Your task to perform on an android device: Open Maps and search for coffee Image 0: 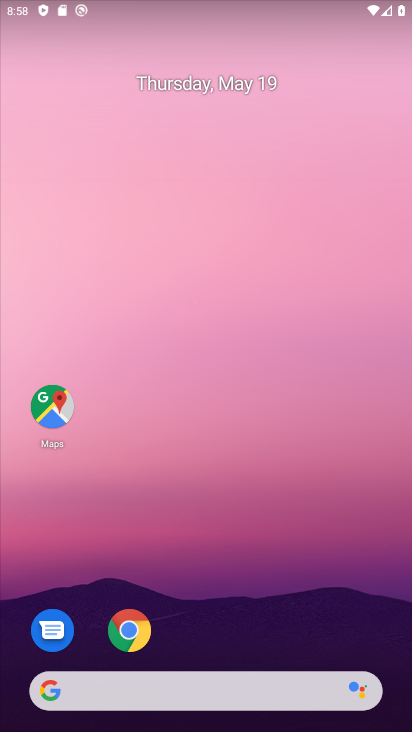
Step 0: drag from (228, 573) to (243, 119)
Your task to perform on an android device: Open Maps and search for coffee Image 1: 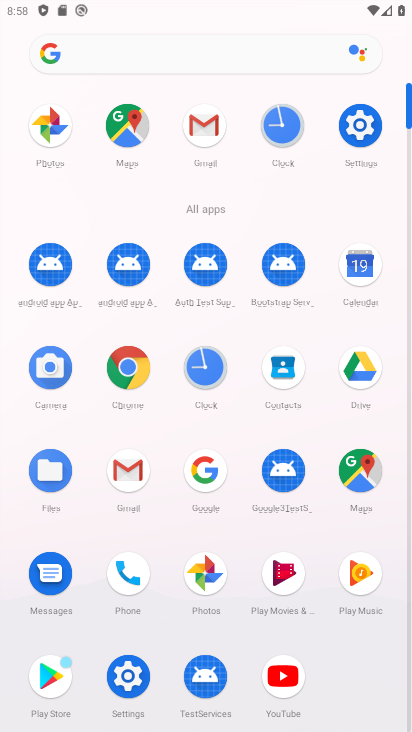
Step 1: click (124, 141)
Your task to perform on an android device: Open Maps and search for coffee Image 2: 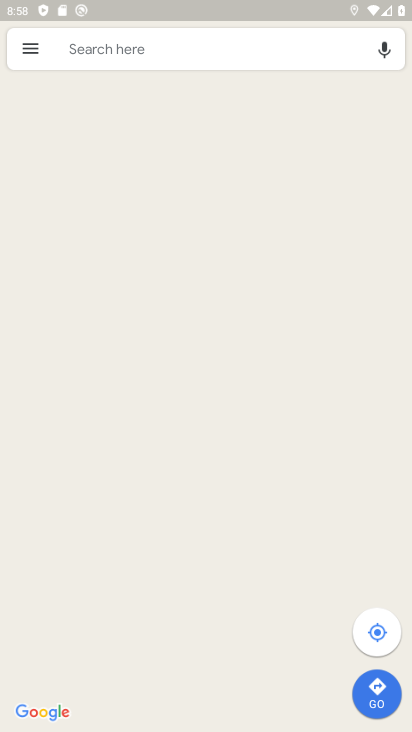
Step 2: click (124, 50)
Your task to perform on an android device: Open Maps and search for coffee Image 3: 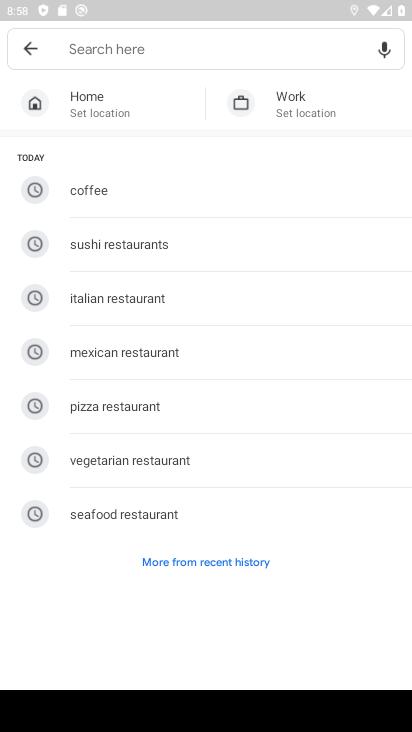
Step 3: type "coffee"
Your task to perform on an android device: Open Maps and search for coffee Image 4: 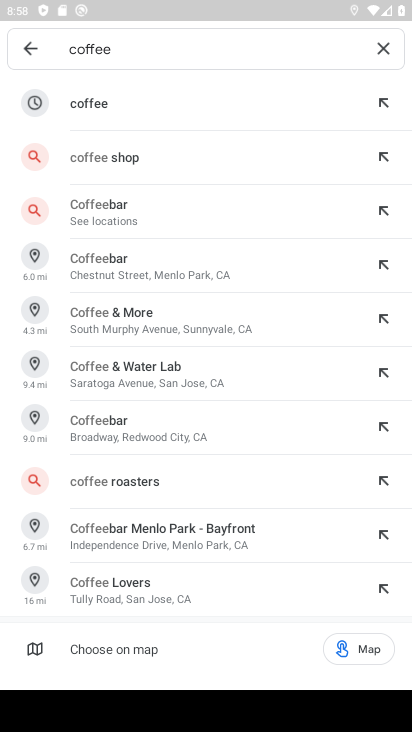
Step 4: click (110, 114)
Your task to perform on an android device: Open Maps and search for coffee Image 5: 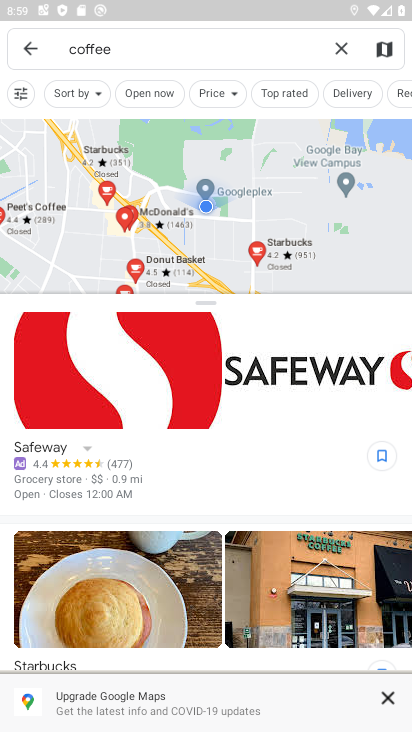
Step 5: task complete